Your task to perform on an android device: Show me the alarms in the clock app Image 0: 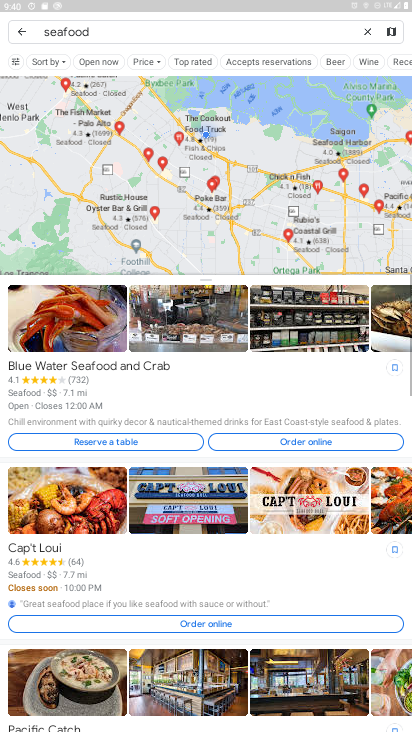
Step 0: press home button
Your task to perform on an android device: Show me the alarms in the clock app Image 1: 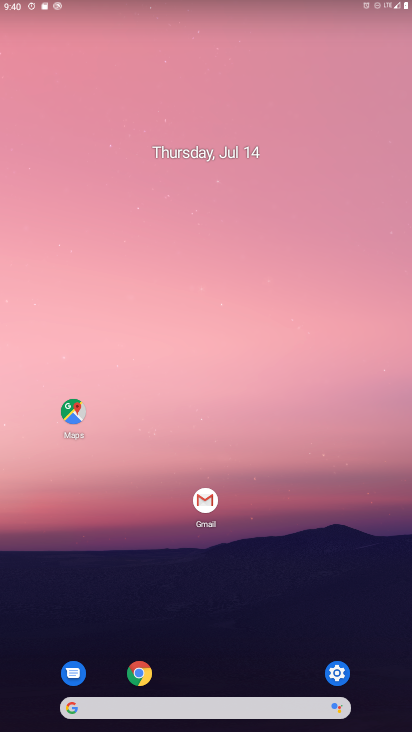
Step 1: drag from (251, 717) to (307, 164)
Your task to perform on an android device: Show me the alarms in the clock app Image 2: 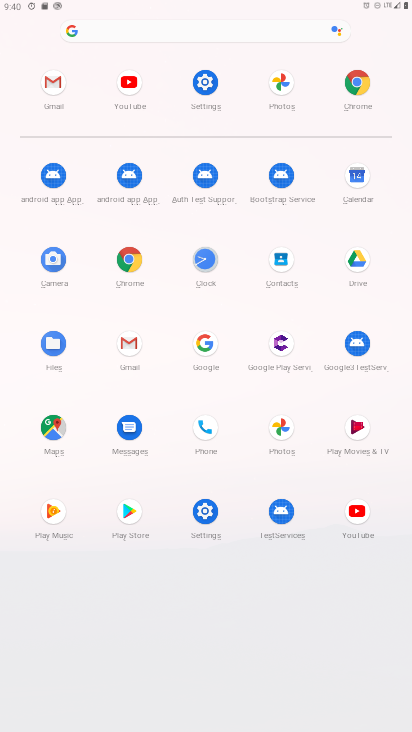
Step 2: click (196, 266)
Your task to perform on an android device: Show me the alarms in the clock app Image 3: 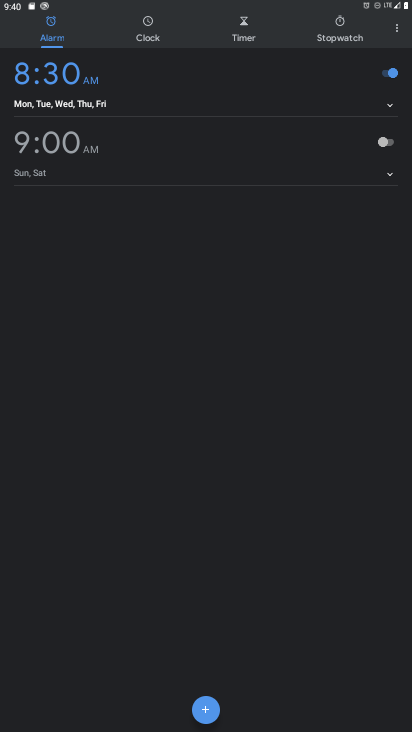
Step 3: click (138, 148)
Your task to perform on an android device: Show me the alarms in the clock app Image 4: 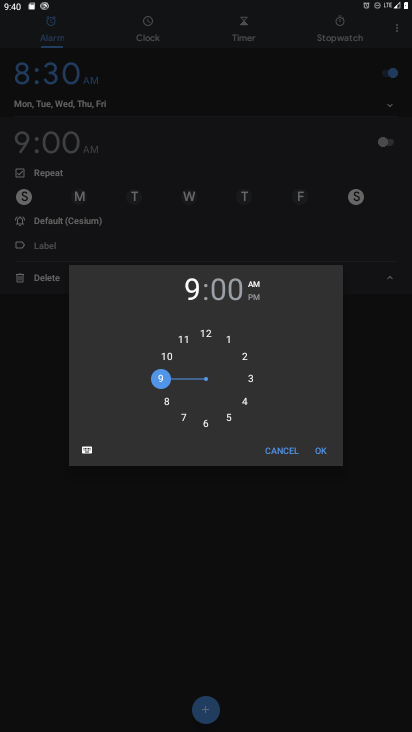
Step 4: click (320, 444)
Your task to perform on an android device: Show me the alarms in the clock app Image 5: 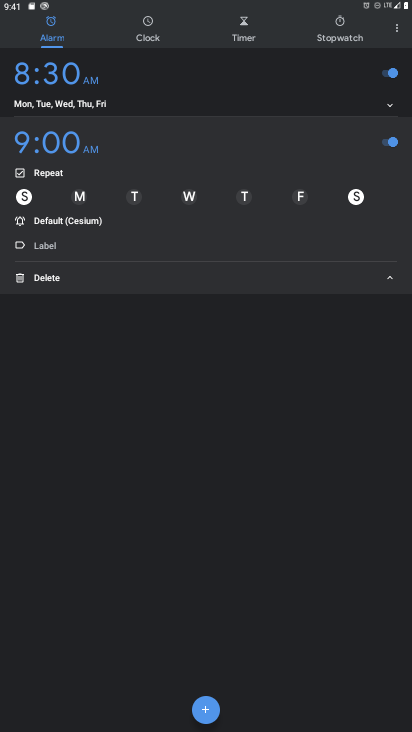
Step 5: task complete